Your task to perform on an android device: install app "Google Find My Device" Image 0: 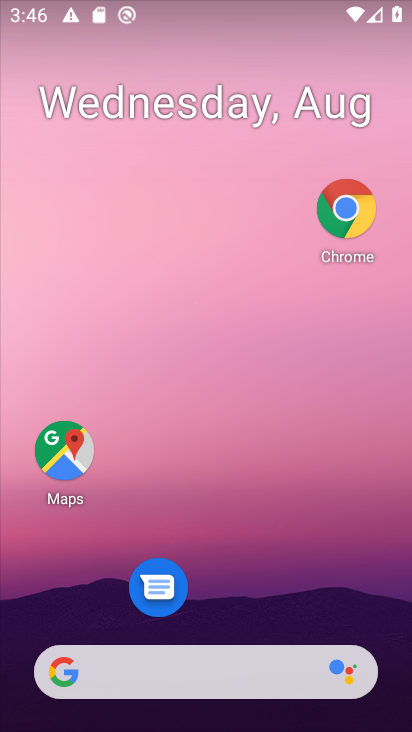
Step 0: drag from (229, 615) to (257, 147)
Your task to perform on an android device: install app "Google Find My Device" Image 1: 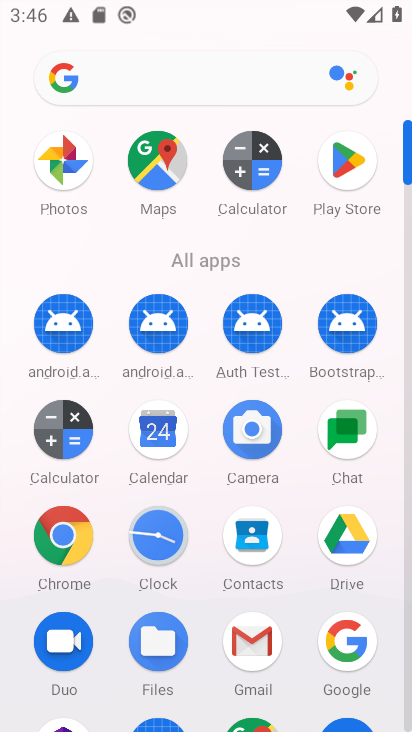
Step 1: click (345, 155)
Your task to perform on an android device: install app "Google Find My Device" Image 2: 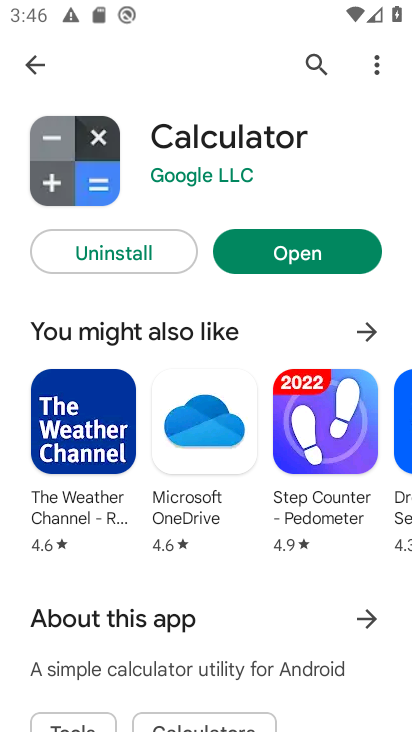
Step 2: press home button
Your task to perform on an android device: install app "Google Find My Device" Image 3: 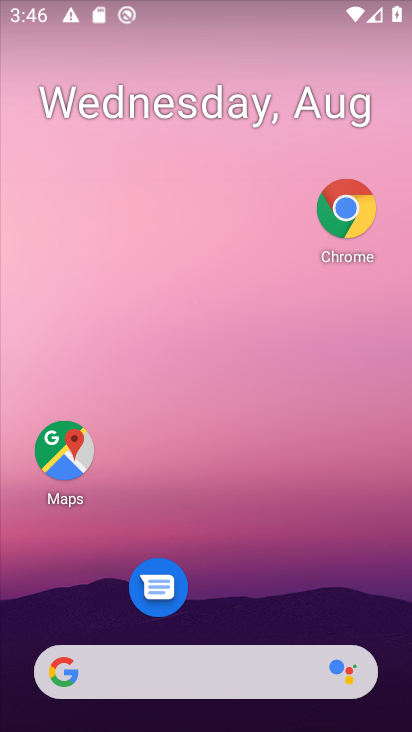
Step 3: drag from (231, 620) to (237, 56)
Your task to perform on an android device: install app "Google Find My Device" Image 4: 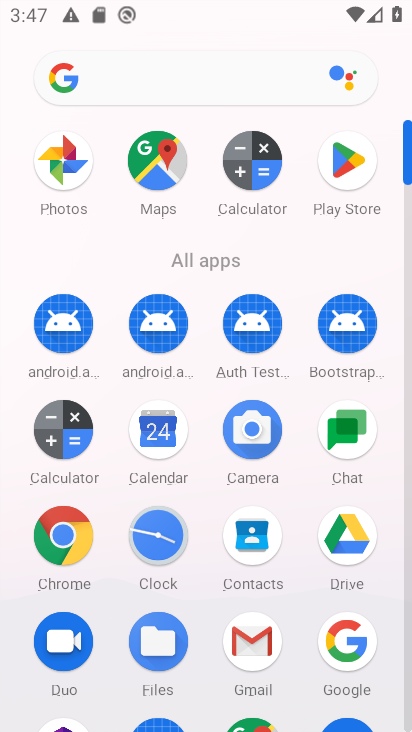
Step 4: click (346, 152)
Your task to perform on an android device: install app "Google Find My Device" Image 5: 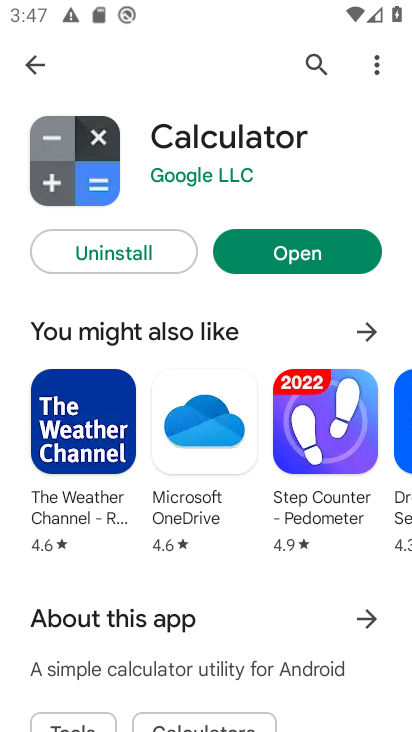
Step 5: click (312, 62)
Your task to perform on an android device: install app "Google Find My Device" Image 6: 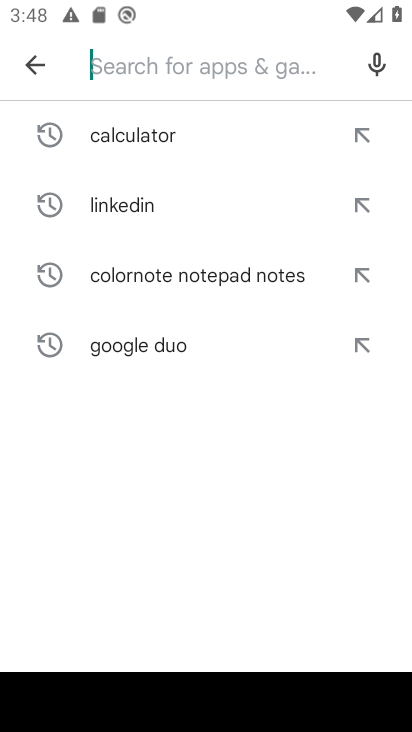
Step 6: type "Google Find My Device"
Your task to perform on an android device: install app "Google Find My Device" Image 7: 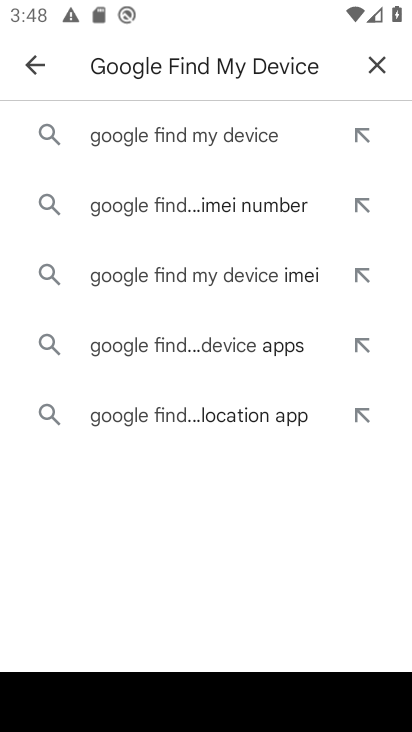
Step 7: click (248, 135)
Your task to perform on an android device: install app "Google Find My Device" Image 8: 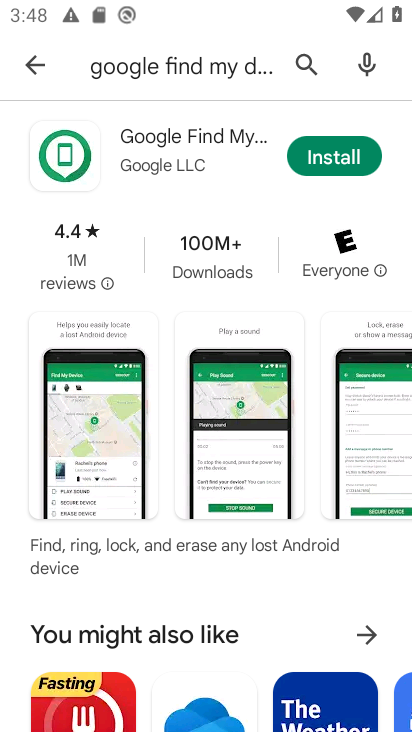
Step 8: click (329, 152)
Your task to perform on an android device: install app "Google Find My Device" Image 9: 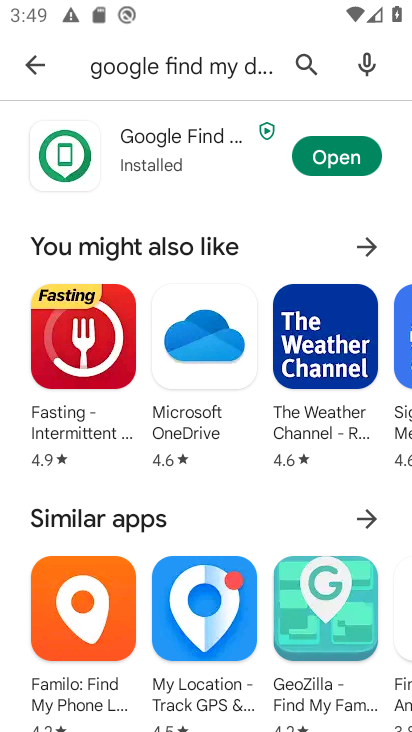
Step 9: click (336, 154)
Your task to perform on an android device: install app "Google Find My Device" Image 10: 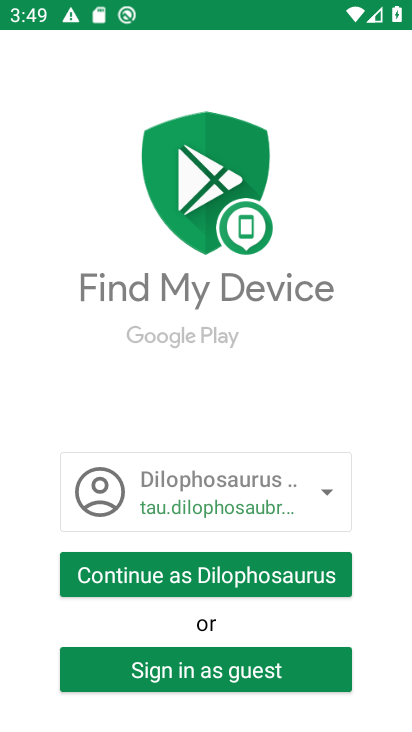
Step 10: click (208, 581)
Your task to perform on an android device: install app "Google Find My Device" Image 11: 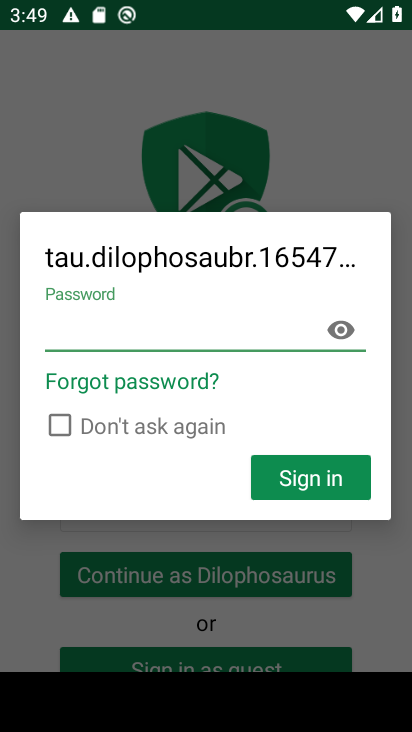
Step 11: task complete